Your task to perform on an android device: turn on wifi Image 0: 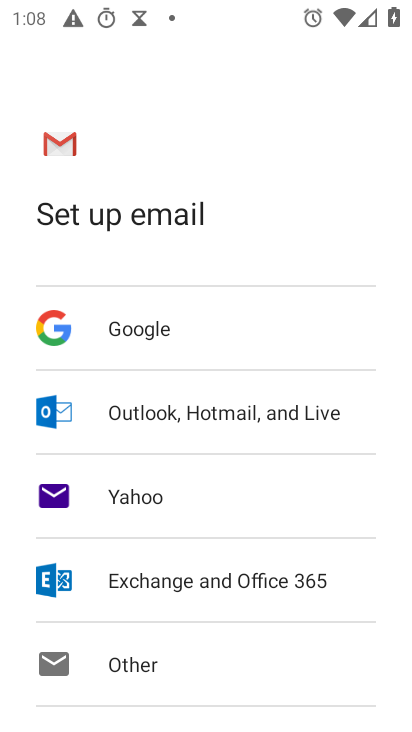
Step 0: press home button
Your task to perform on an android device: turn on wifi Image 1: 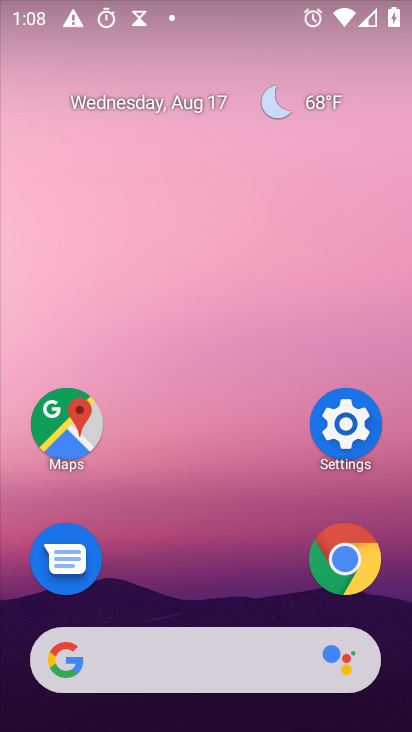
Step 1: click (347, 418)
Your task to perform on an android device: turn on wifi Image 2: 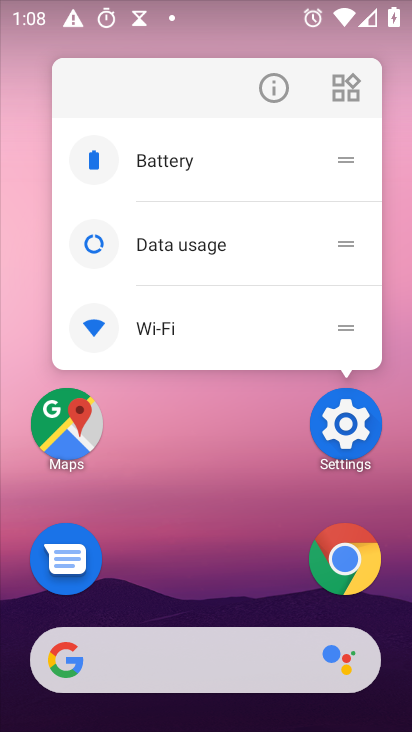
Step 2: click (343, 423)
Your task to perform on an android device: turn on wifi Image 3: 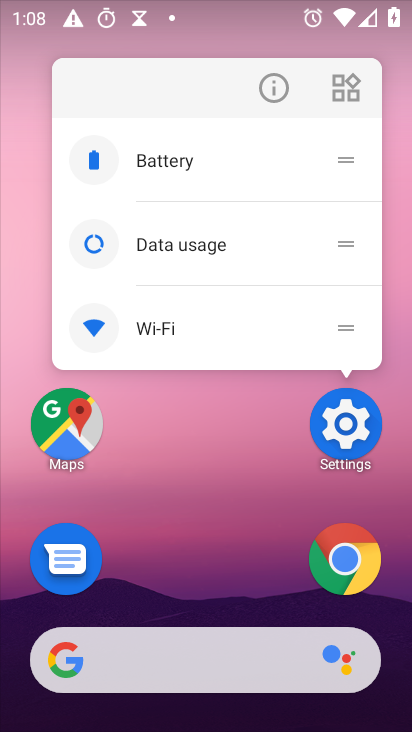
Step 3: click (351, 429)
Your task to perform on an android device: turn on wifi Image 4: 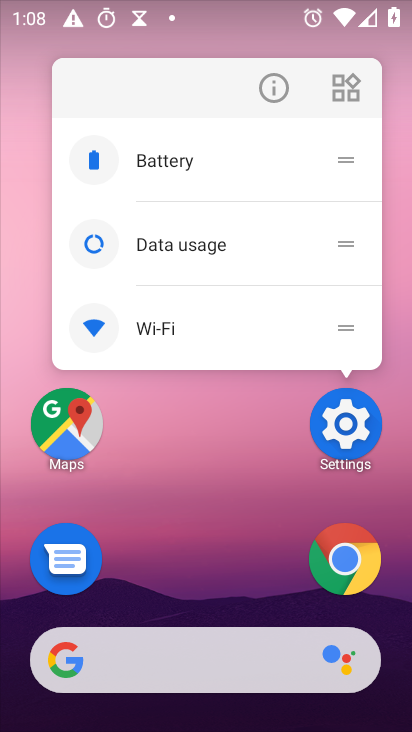
Step 4: click (349, 422)
Your task to perform on an android device: turn on wifi Image 5: 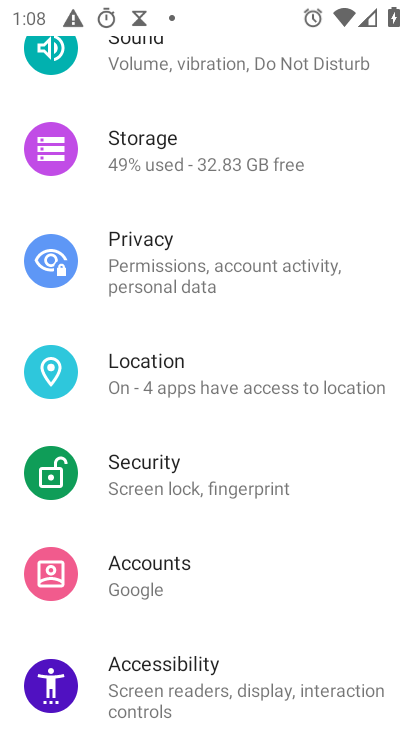
Step 5: drag from (329, 119) to (315, 613)
Your task to perform on an android device: turn on wifi Image 6: 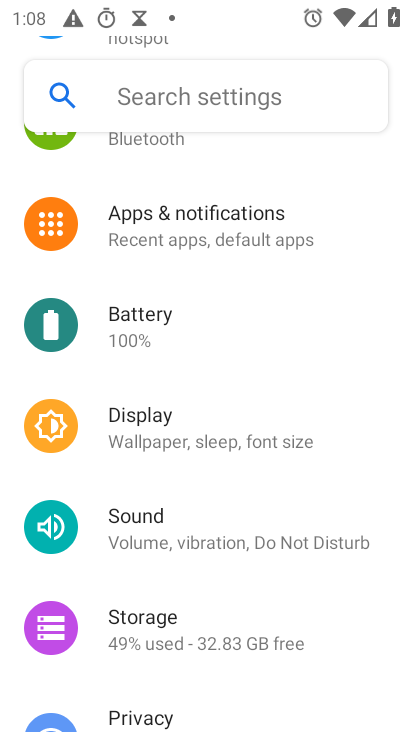
Step 6: drag from (323, 163) to (293, 635)
Your task to perform on an android device: turn on wifi Image 7: 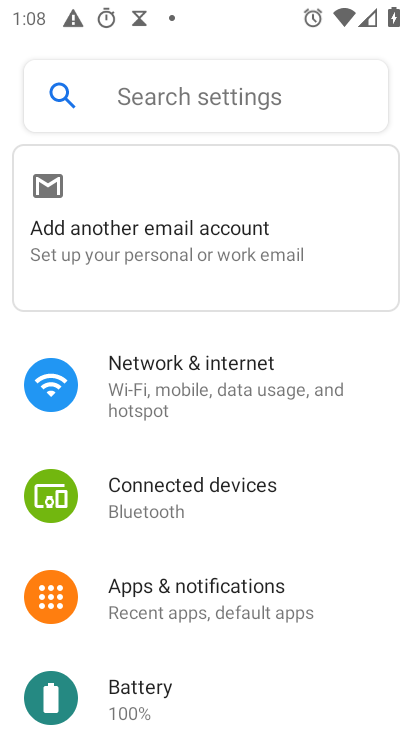
Step 7: click (243, 375)
Your task to perform on an android device: turn on wifi Image 8: 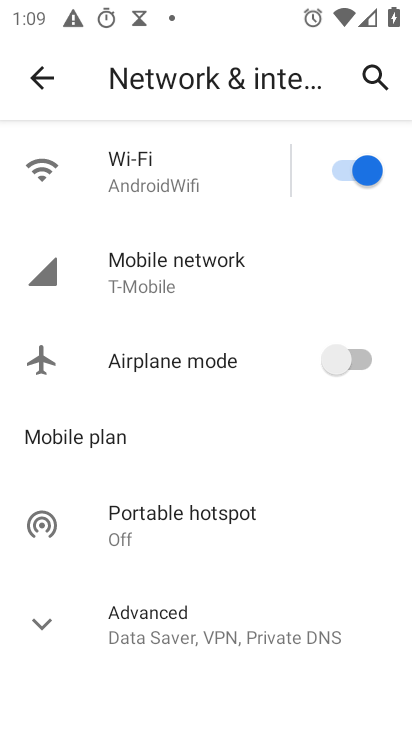
Step 8: task complete